Your task to perform on an android device: Go to Yahoo.com Image 0: 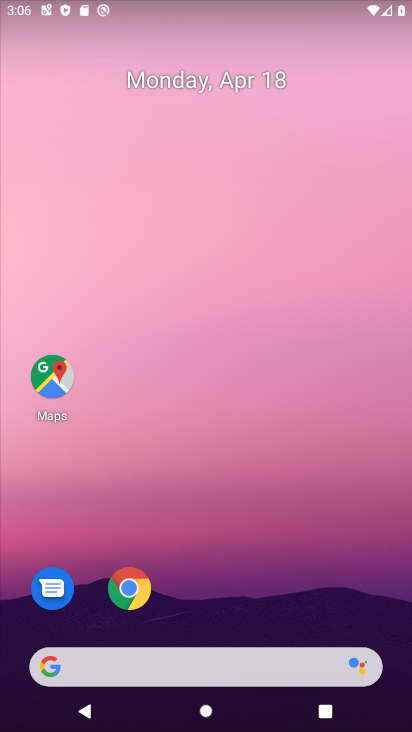
Step 0: click (154, 597)
Your task to perform on an android device: Go to Yahoo.com Image 1: 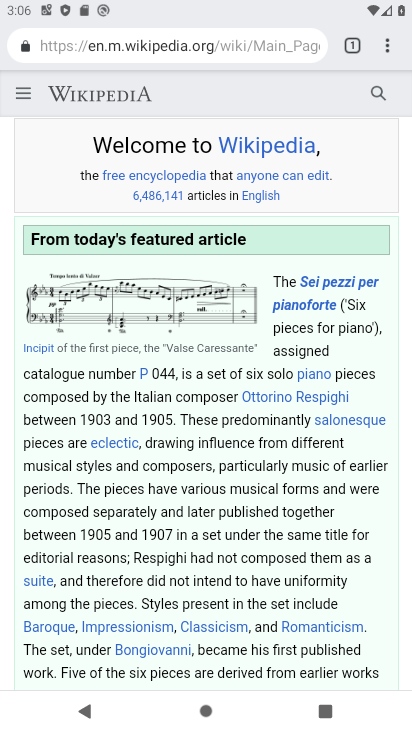
Step 1: click (352, 53)
Your task to perform on an android device: Go to Yahoo.com Image 2: 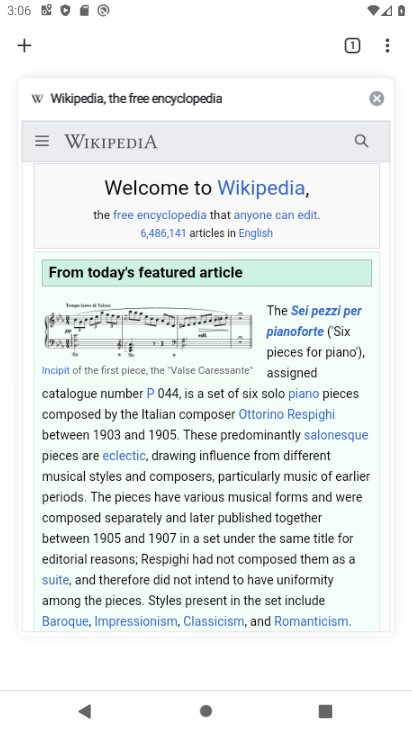
Step 2: click (36, 51)
Your task to perform on an android device: Go to Yahoo.com Image 3: 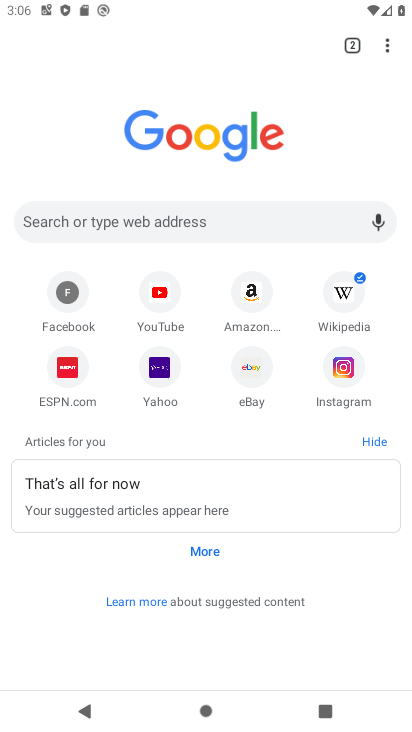
Step 3: click (157, 366)
Your task to perform on an android device: Go to Yahoo.com Image 4: 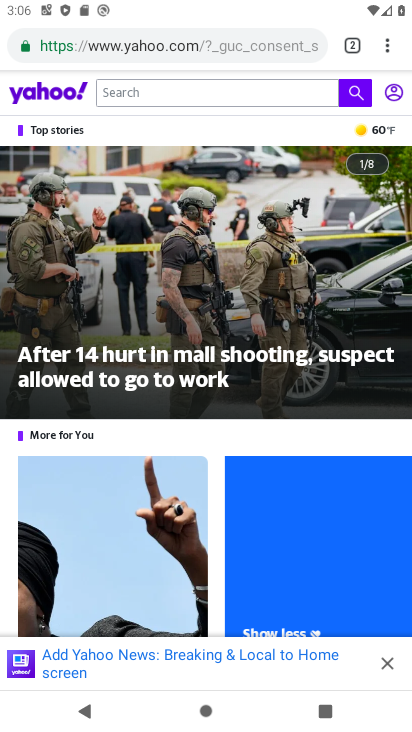
Step 4: task complete